Your task to perform on an android device: open wifi settings Image 0: 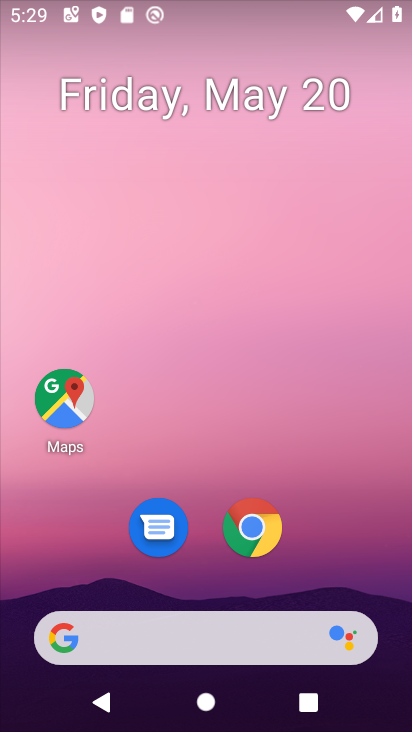
Step 0: drag from (201, 616) to (214, 97)
Your task to perform on an android device: open wifi settings Image 1: 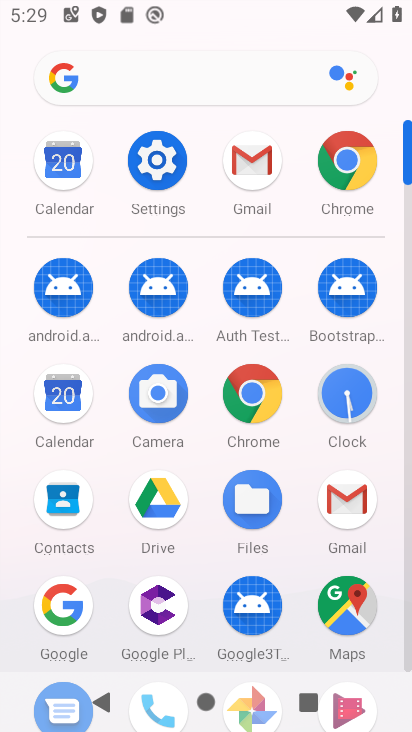
Step 1: click (161, 165)
Your task to perform on an android device: open wifi settings Image 2: 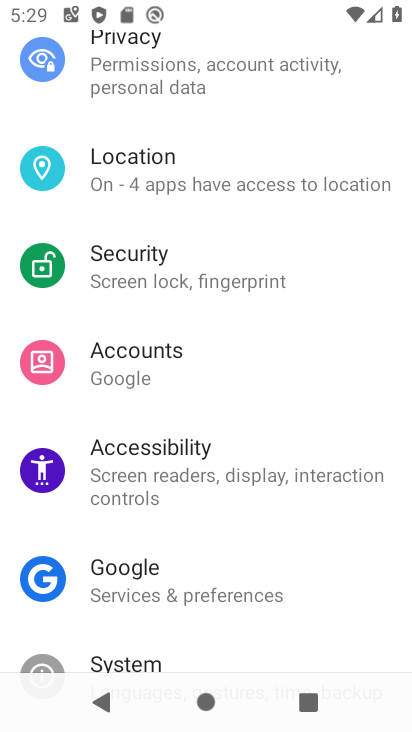
Step 2: drag from (192, 191) to (242, 673)
Your task to perform on an android device: open wifi settings Image 3: 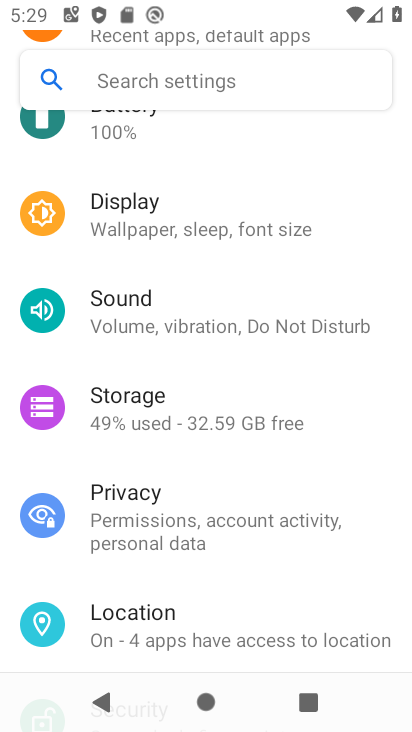
Step 3: drag from (198, 204) to (250, 711)
Your task to perform on an android device: open wifi settings Image 4: 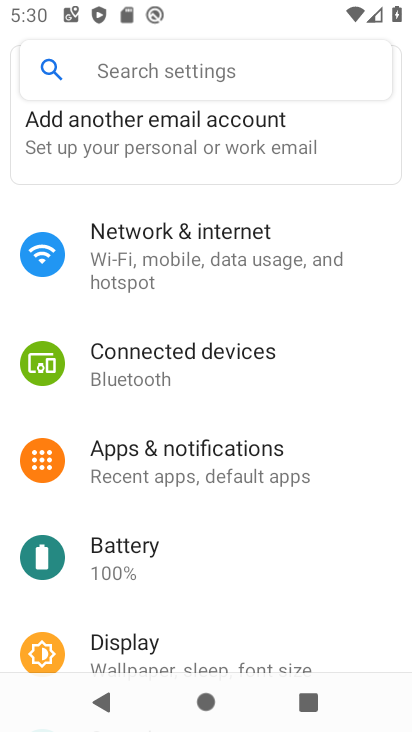
Step 4: click (161, 269)
Your task to perform on an android device: open wifi settings Image 5: 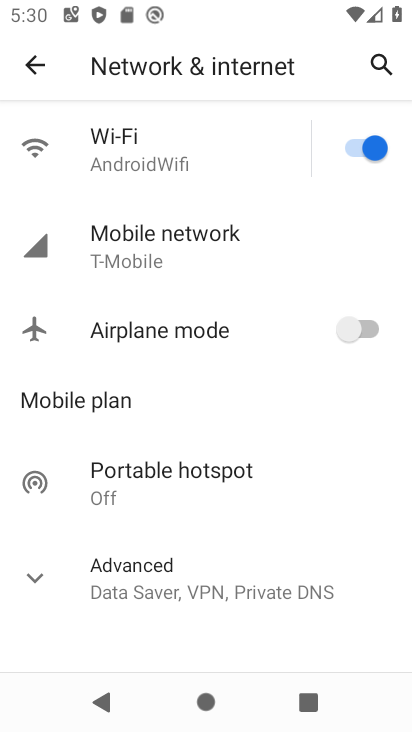
Step 5: click (221, 143)
Your task to perform on an android device: open wifi settings Image 6: 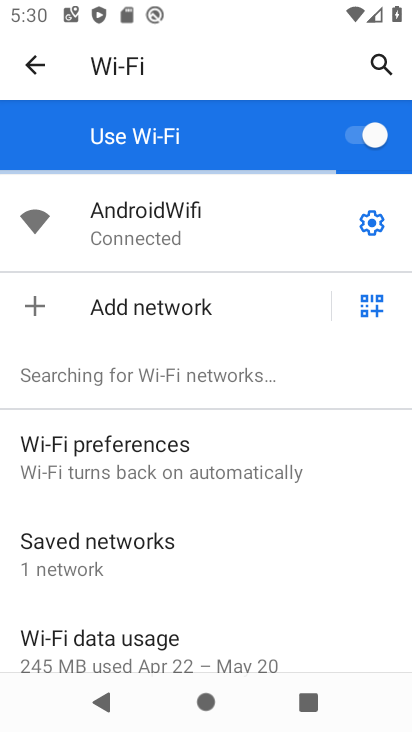
Step 6: task complete